Your task to perform on an android device: move an email to a new category in the gmail app Image 0: 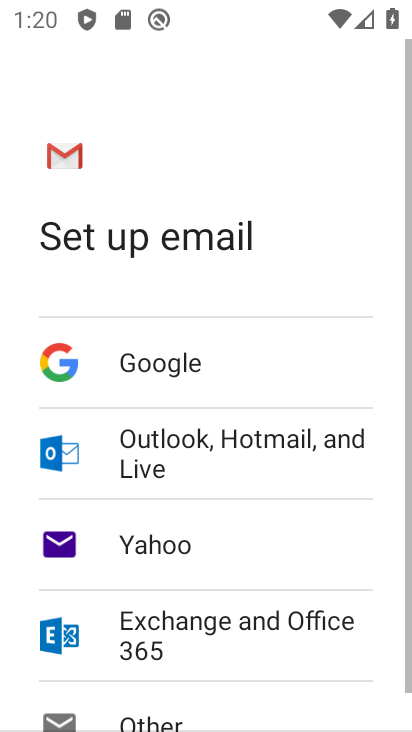
Step 0: press back button
Your task to perform on an android device: move an email to a new category in the gmail app Image 1: 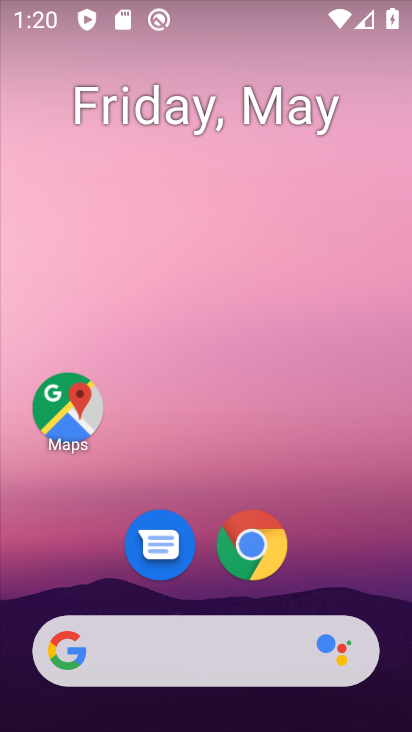
Step 1: drag from (288, 719) to (111, 13)
Your task to perform on an android device: move an email to a new category in the gmail app Image 2: 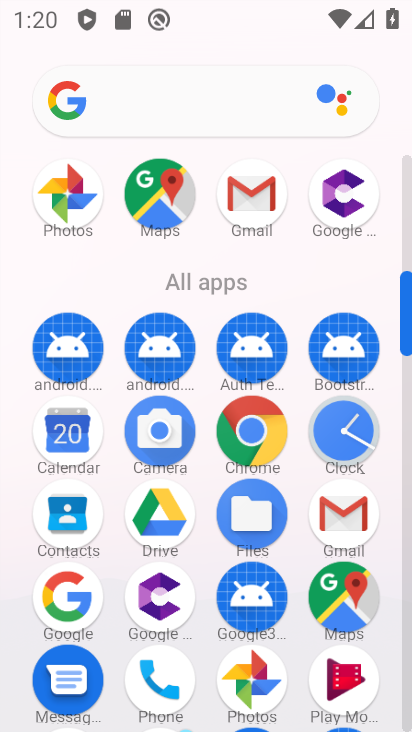
Step 2: click (352, 505)
Your task to perform on an android device: move an email to a new category in the gmail app Image 3: 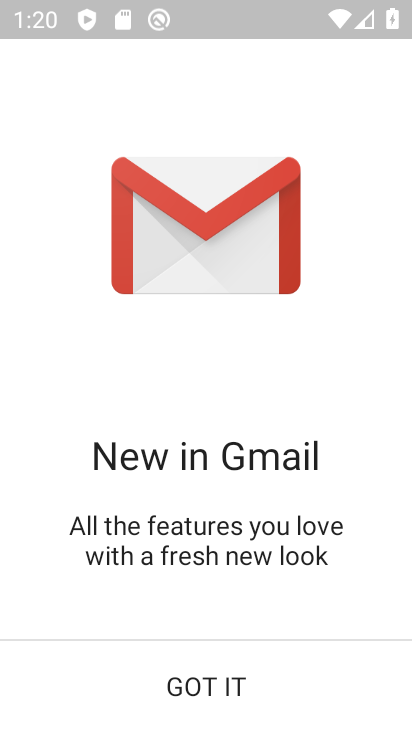
Step 3: click (198, 677)
Your task to perform on an android device: move an email to a new category in the gmail app Image 4: 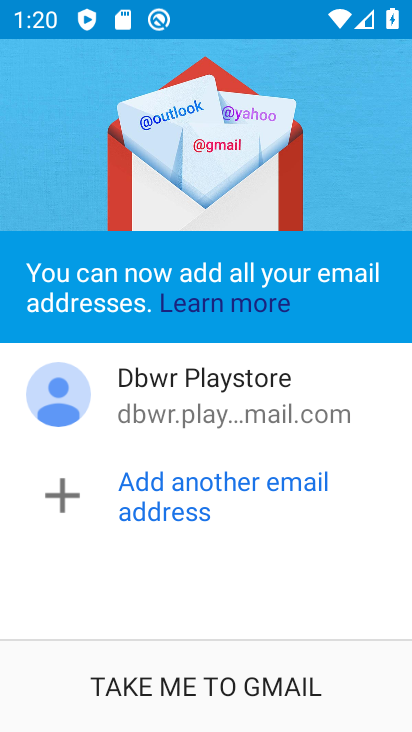
Step 4: click (256, 680)
Your task to perform on an android device: move an email to a new category in the gmail app Image 5: 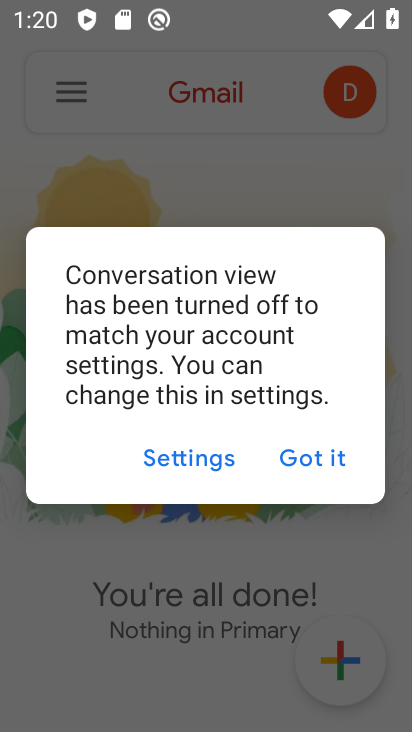
Step 5: click (340, 445)
Your task to perform on an android device: move an email to a new category in the gmail app Image 6: 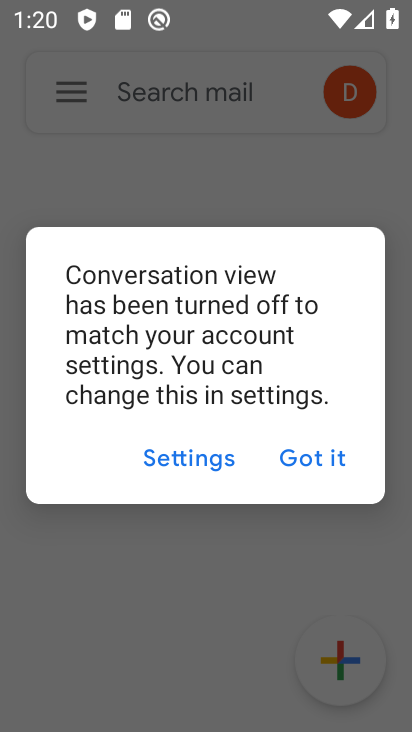
Step 6: click (320, 443)
Your task to perform on an android device: move an email to a new category in the gmail app Image 7: 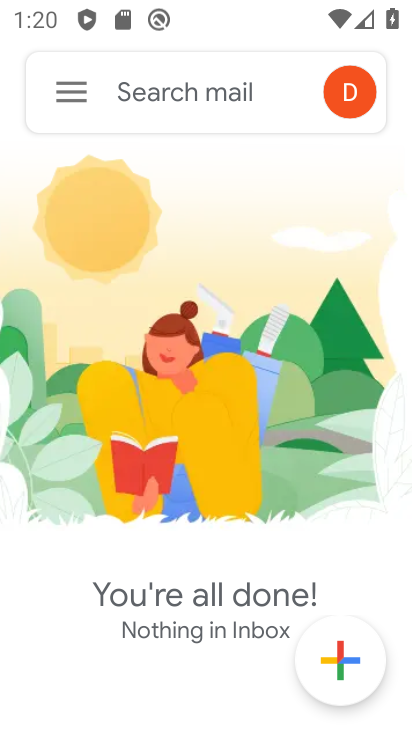
Step 7: click (76, 94)
Your task to perform on an android device: move an email to a new category in the gmail app Image 8: 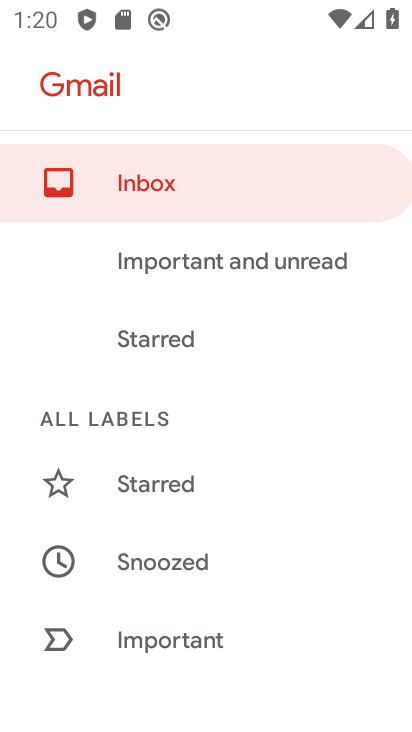
Step 8: drag from (137, 486) to (89, 71)
Your task to perform on an android device: move an email to a new category in the gmail app Image 9: 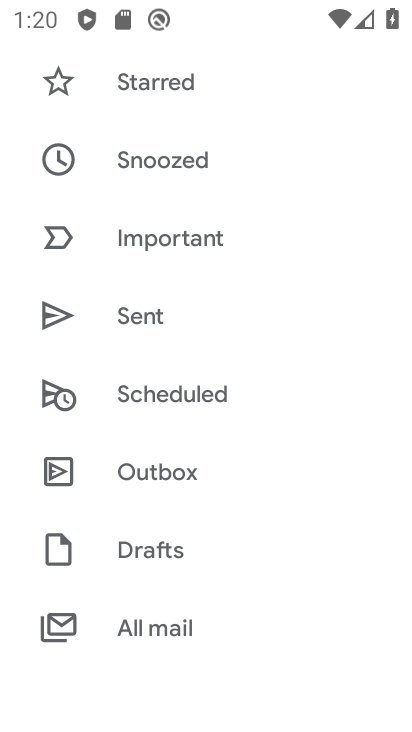
Step 9: drag from (173, 410) to (127, 92)
Your task to perform on an android device: move an email to a new category in the gmail app Image 10: 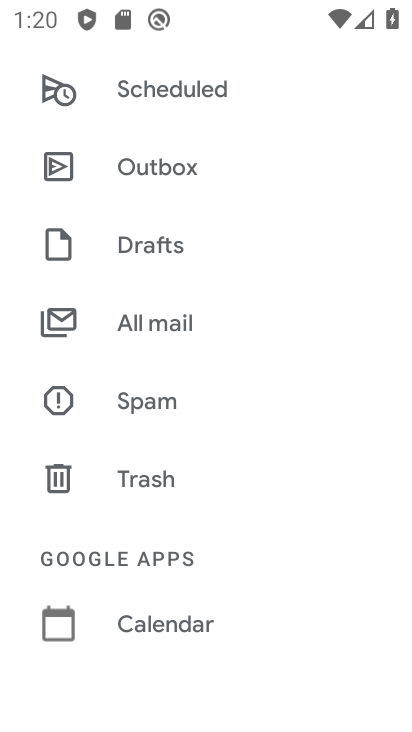
Step 10: drag from (171, 495) to (157, 167)
Your task to perform on an android device: move an email to a new category in the gmail app Image 11: 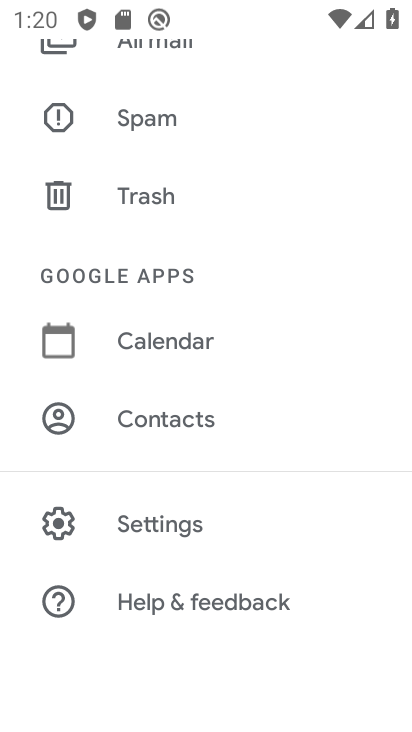
Step 11: drag from (149, 211) to (222, 501)
Your task to perform on an android device: move an email to a new category in the gmail app Image 12: 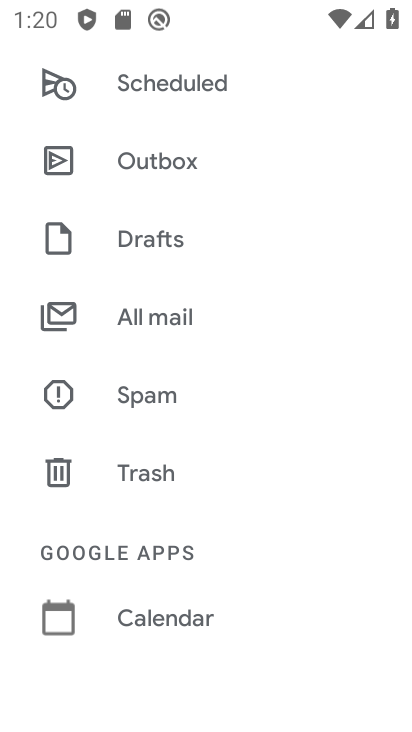
Step 12: drag from (224, 196) to (275, 508)
Your task to perform on an android device: move an email to a new category in the gmail app Image 13: 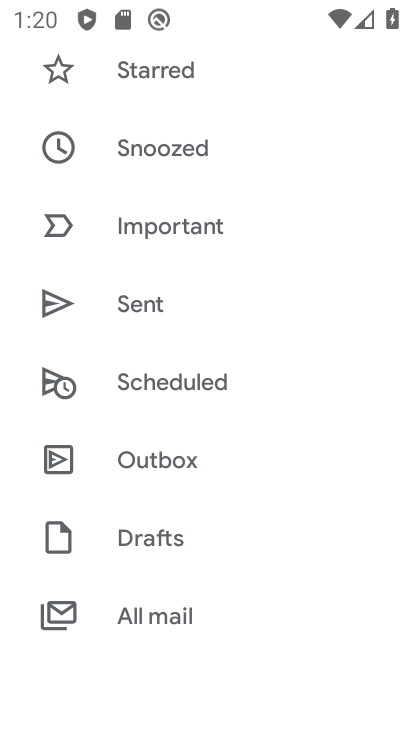
Step 13: click (147, 607)
Your task to perform on an android device: move an email to a new category in the gmail app Image 14: 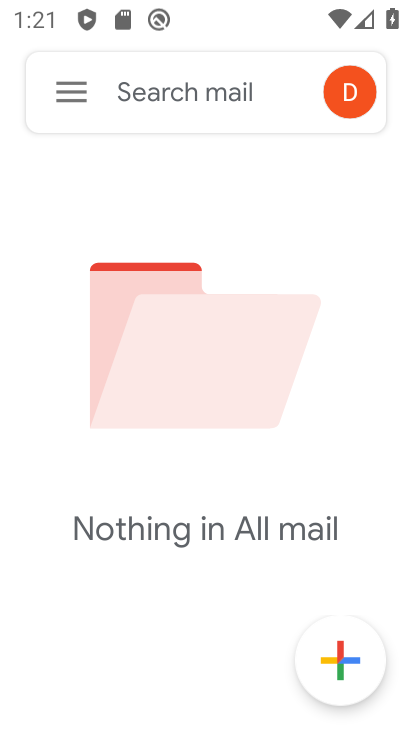
Step 14: task complete